Your task to perform on an android device: Open display settings Image 0: 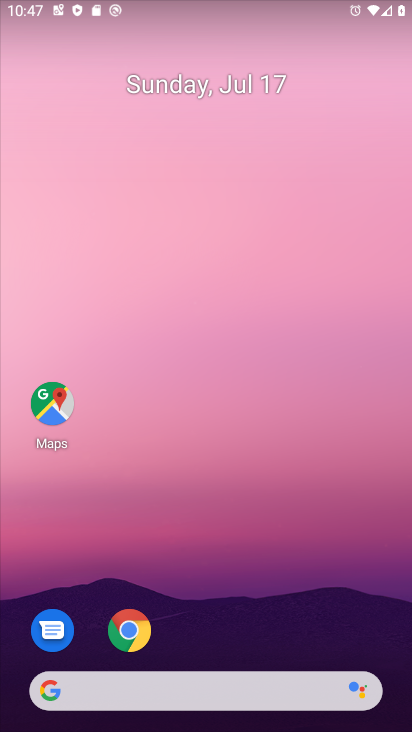
Step 0: drag from (342, 600) to (384, 101)
Your task to perform on an android device: Open display settings Image 1: 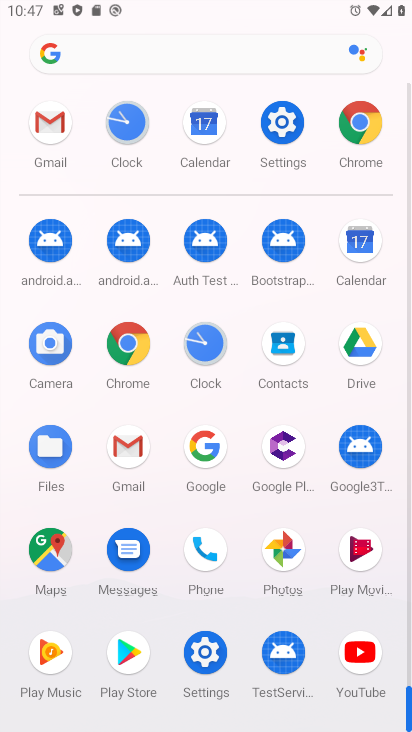
Step 1: click (284, 109)
Your task to perform on an android device: Open display settings Image 2: 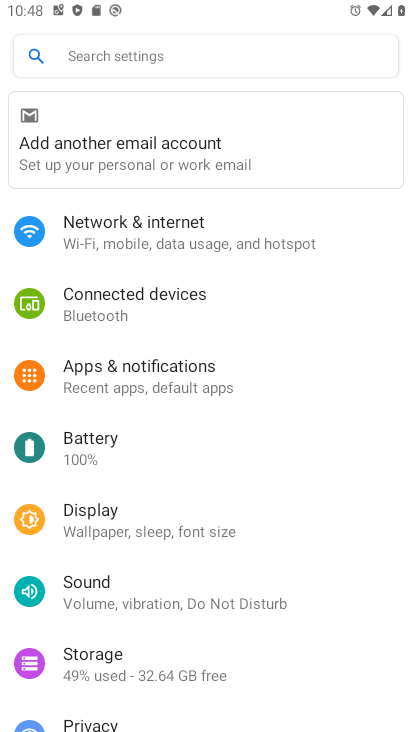
Step 2: drag from (345, 636) to (342, 217)
Your task to perform on an android device: Open display settings Image 3: 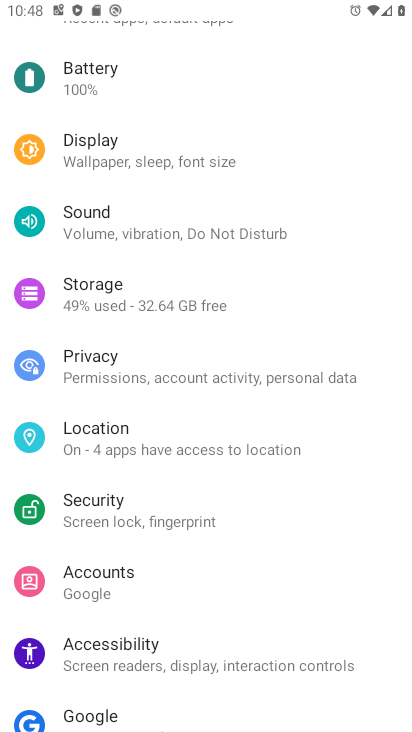
Step 3: drag from (323, 537) to (348, 384)
Your task to perform on an android device: Open display settings Image 4: 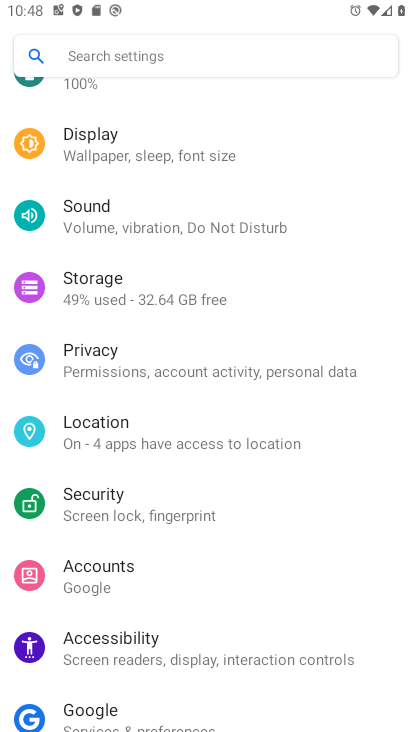
Step 4: click (170, 141)
Your task to perform on an android device: Open display settings Image 5: 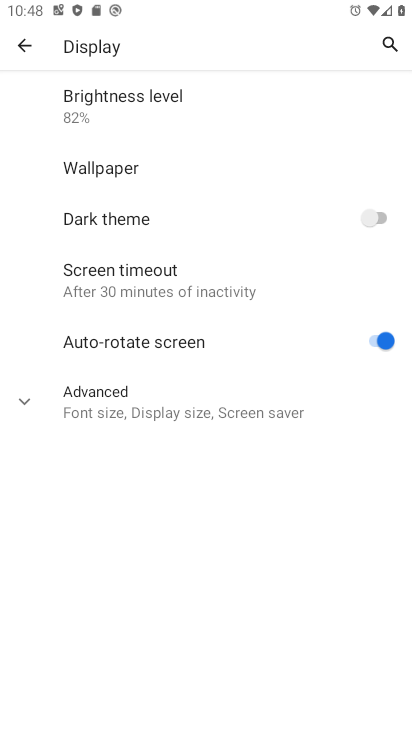
Step 5: click (190, 418)
Your task to perform on an android device: Open display settings Image 6: 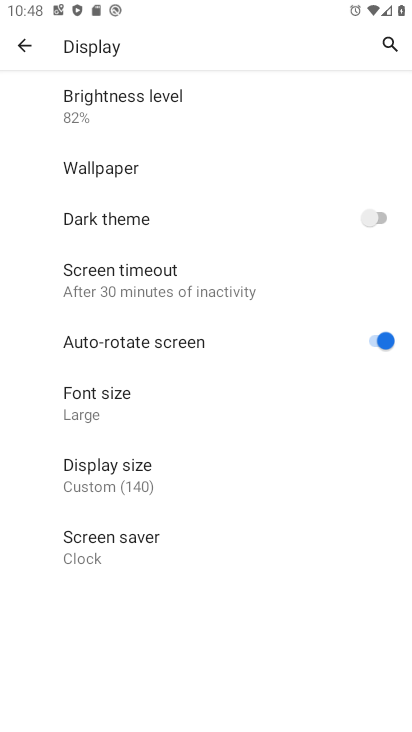
Step 6: task complete